Your task to perform on an android device: Search for Italian restaurants on Maps Image 0: 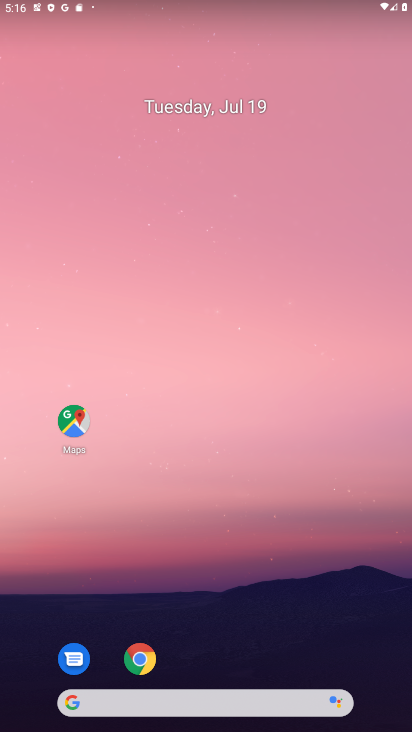
Step 0: drag from (279, 616) to (215, 94)
Your task to perform on an android device: Search for Italian restaurants on Maps Image 1: 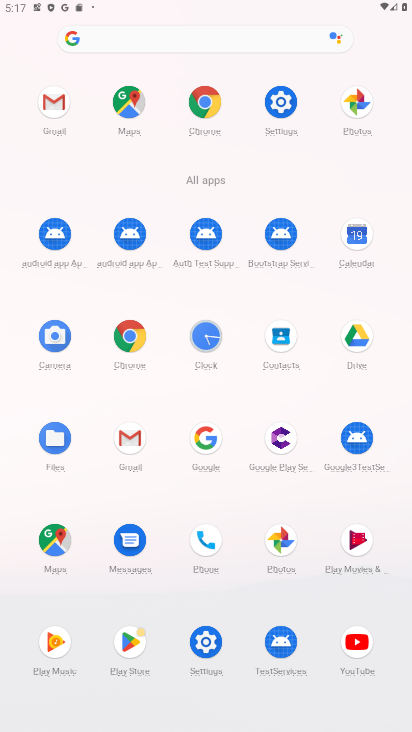
Step 1: click (57, 553)
Your task to perform on an android device: Search for Italian restaurants on Maps Image 2: 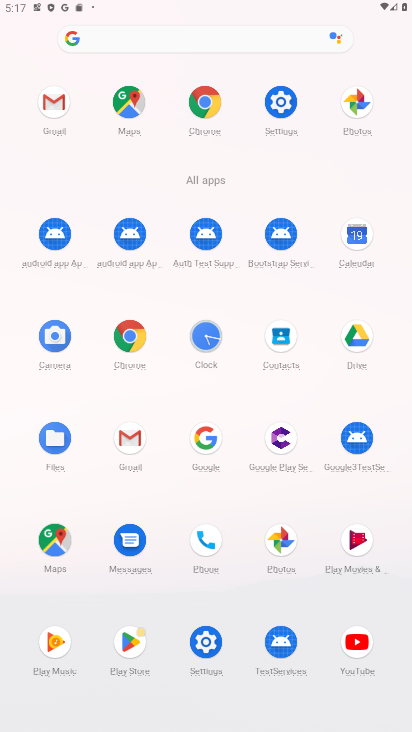
Step 2: click (51, 528)
Your task to perform on an android device: Search for Italian restaurants on Maps Image 3: 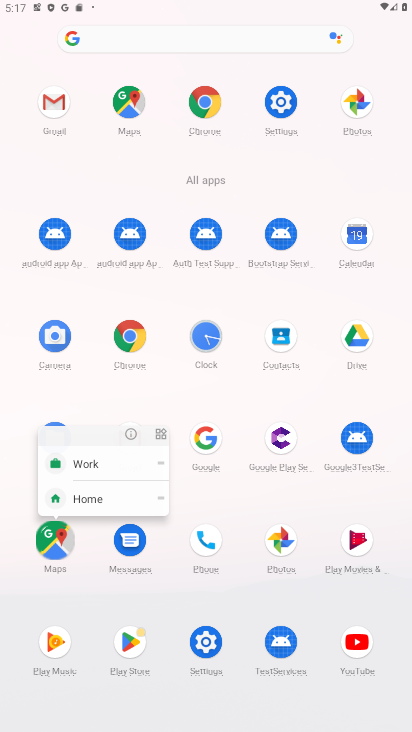
Step 3: click (55, 540)
Your task to perform on an android device: Search for Italian restaurants on Maps Image 4: 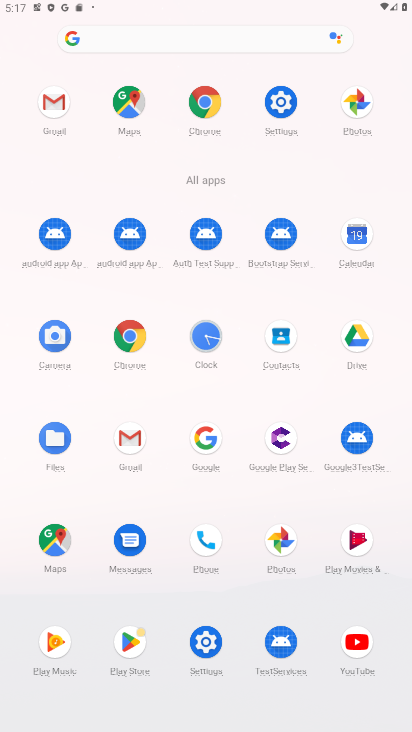
Step 4: click (55, 539)
Your task to perform on an android device: Search for Italian restaurants on Maps Image 5: 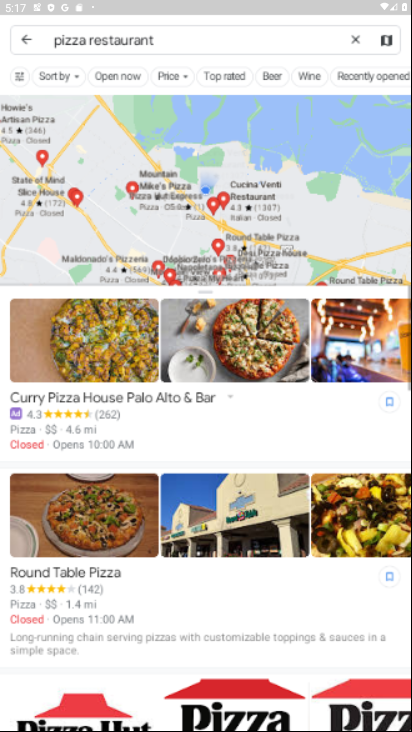
Step 5: click (53, 534)
Your task to perform on an android device: Search for Italian restaurants on Maps Image 6: 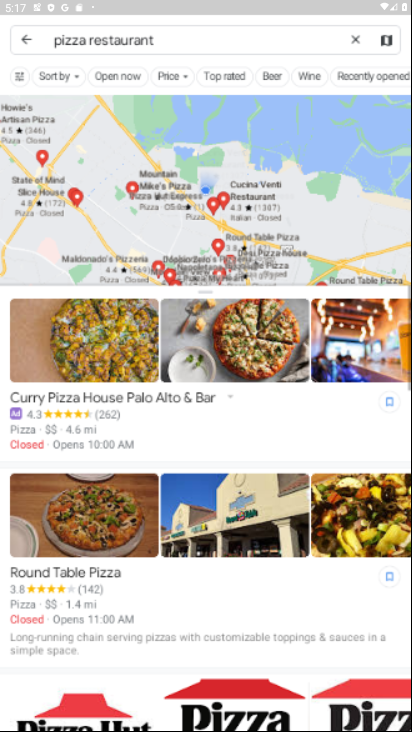
Step 6: click (52, 530)
Your task to perform on an android device: Search for Italian restaurants on Maps Image 7: 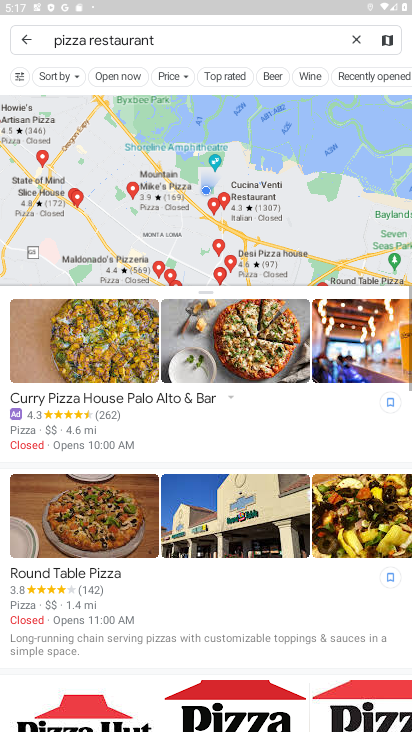
Step 7: click (181, 40)
Your task to perform on an android device: Search for Italian restaurants on Maps Image 8: 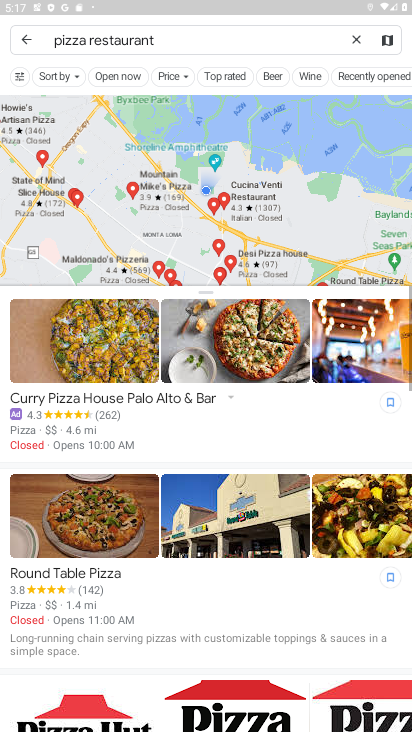
Step 8: click (181, 40)
Your task to perform on an android device: Search for Italian restaurants on Maps Image 9: 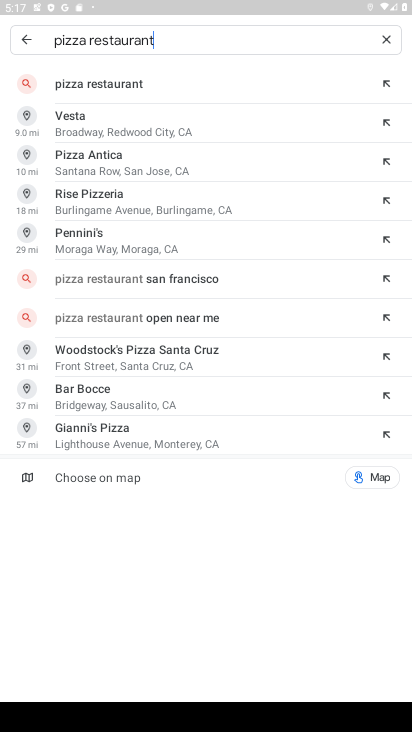
Step 9: click (388, 48)
Your task to perform on an android device: Search for Italian restaurants on Maps Image 10: 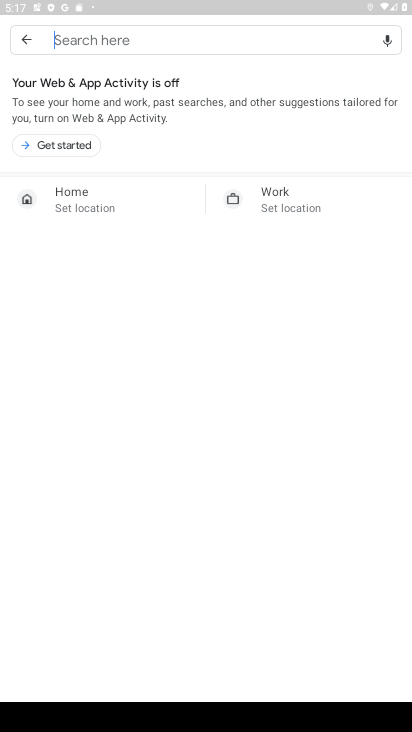
Step 10: type "italian restaurants"
Your task to perform on an android device: Search for Italian restaurants on Maps Image 11: 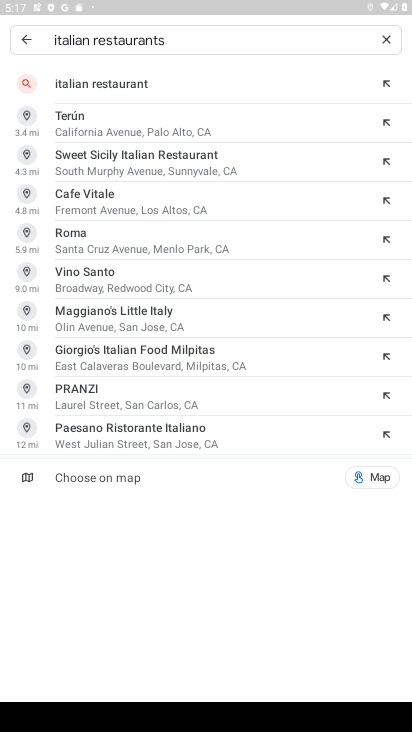
Step 11: click (115, 82)
Your task to perform on an android device: Search for Italian restaurants on Maps Image 12: 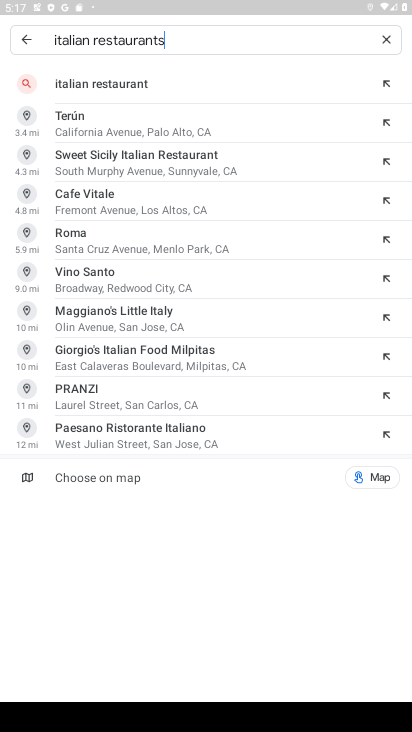
Step 12: click (122, 80)
Your task to perform on an android device: Search for Italian restaurants on Maps Image 13: 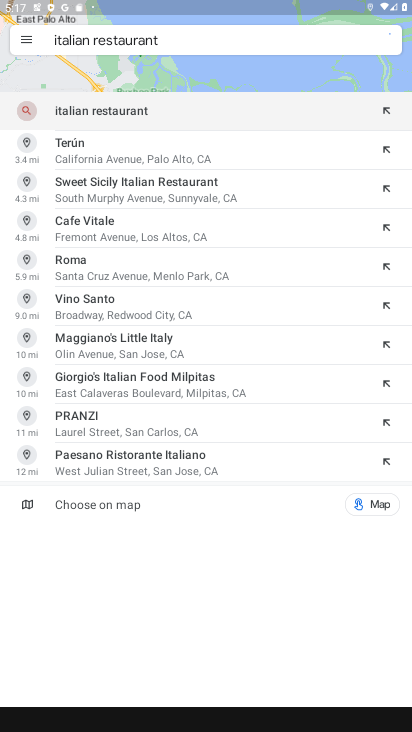
Step 13: click (126, 87)
Your task to perform on an android device: Search for Italian restaurants on Maps Image 14: 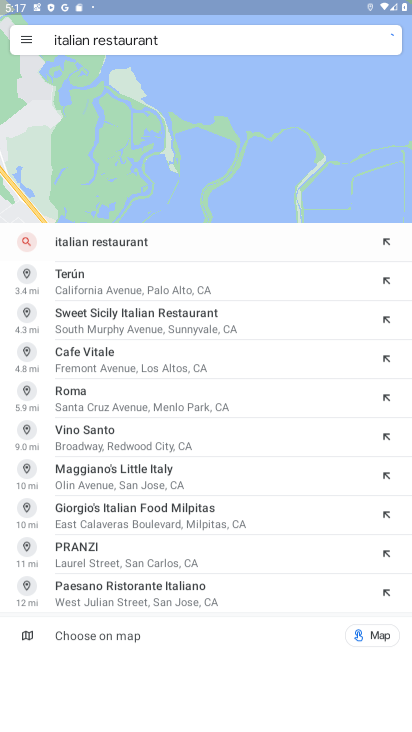
Step 14: click (129, 91)
Your task to perform on an android device: Search for Italian restaurants on Maps Image 15: 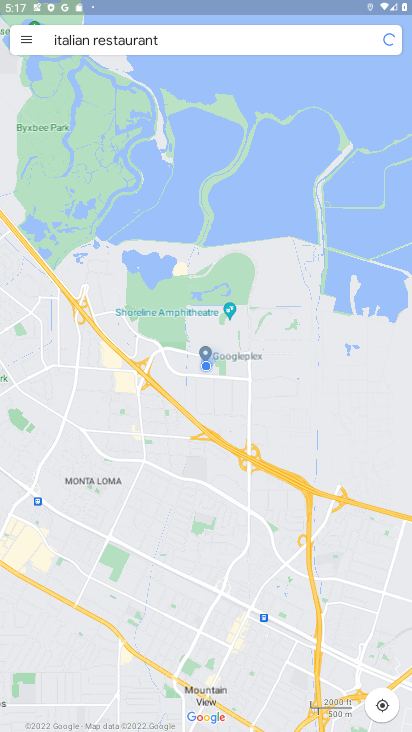
Step 15: click (132, 87)
Your task to perform on an android device: Search for Italian restaurants on Maps Image 16: 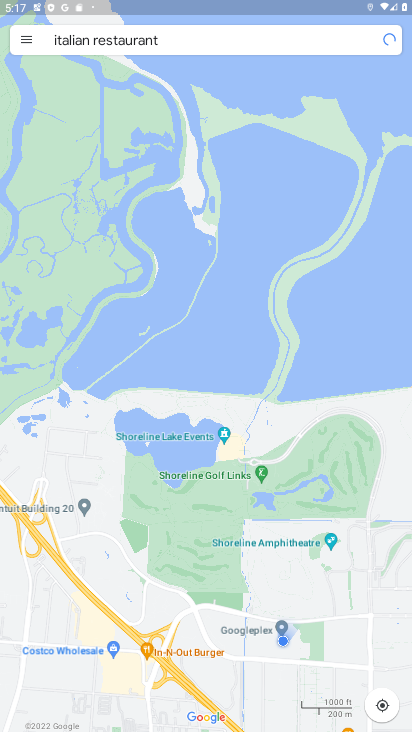
Step 16: task complete